Your task to perform on an android device: Go to Amazon Image 0: 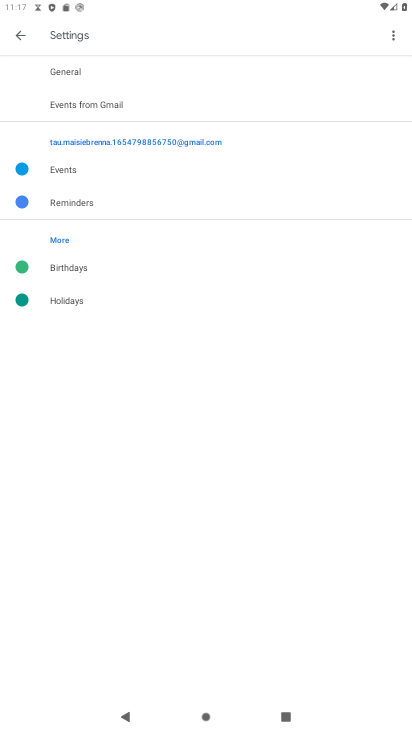
Step 0: press home button
Your task to perform on an android device: Go to Amazon Image 1: 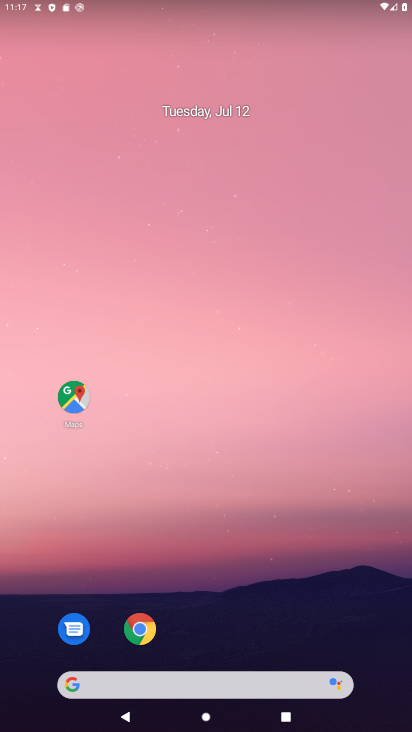
Step 1: drag from (232, 530) to (337, 5)
Your task to perform on an android device: Go to Amazon Image 2: 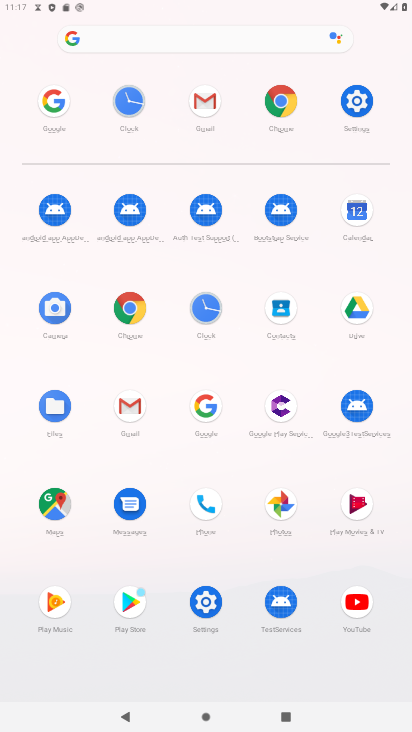
Step 2: click (289, 113)
Your task to perform on an android device: Go to Amazon Image 3: 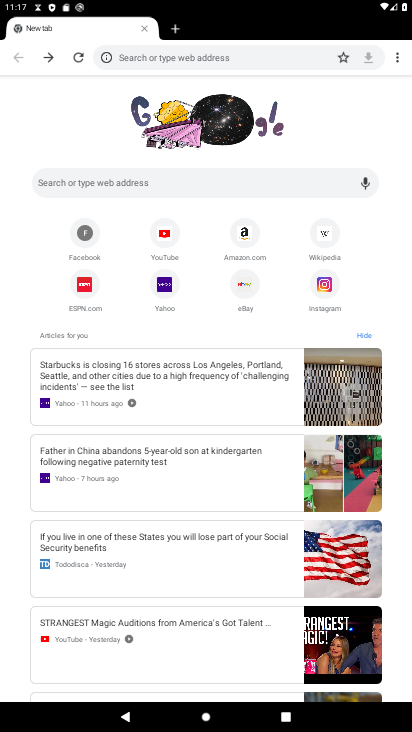
Step 3: click (251, 240)
Your task to perform on an android device: Go to Amazon Image 4: 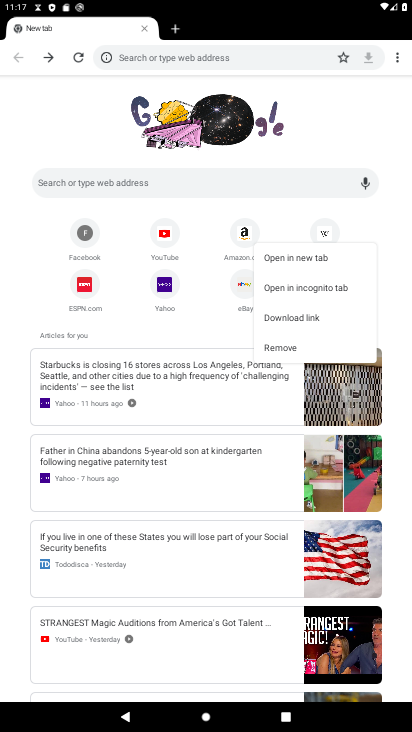
Step 4: click (252, 239)
Your task to perform on an android device: Go to Amazon Image 5: 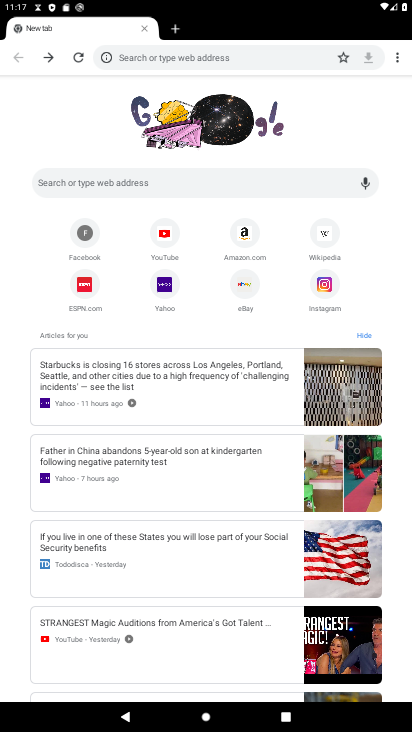
Step 5: click (239, 224)
Your task to perform on an android device: Go to Amazon Image 6: 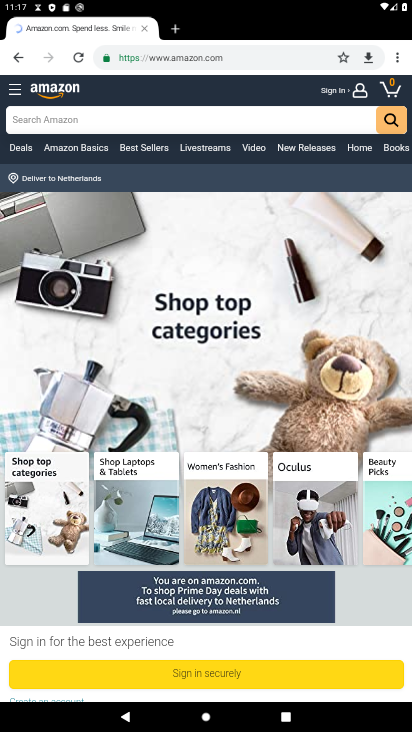
Step 6: task complete